Your task to perform on an android device: set default search engine in the chrome app Image 0: 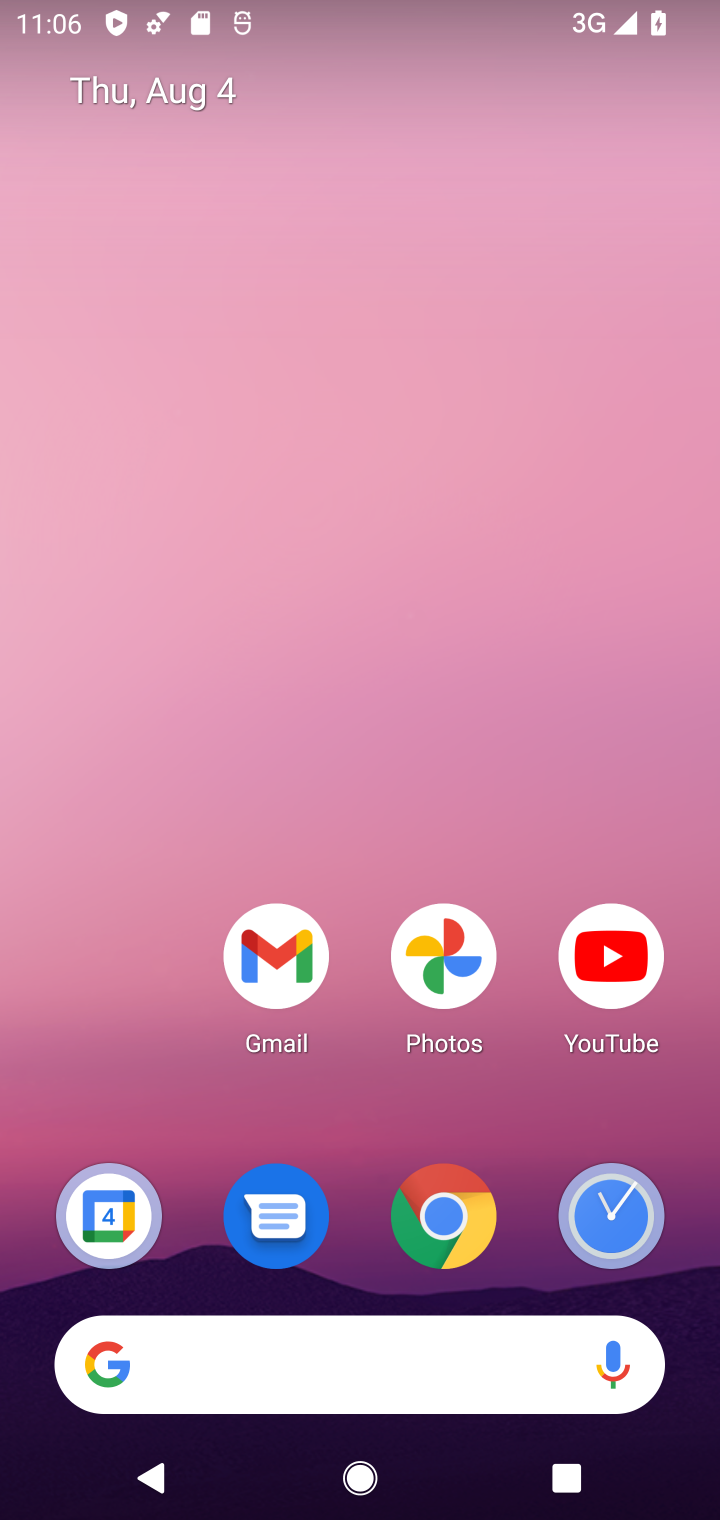
Step 0: click (449, 1212)
Your task to perform on an android device: set default search engine in the chrome app Image 1: 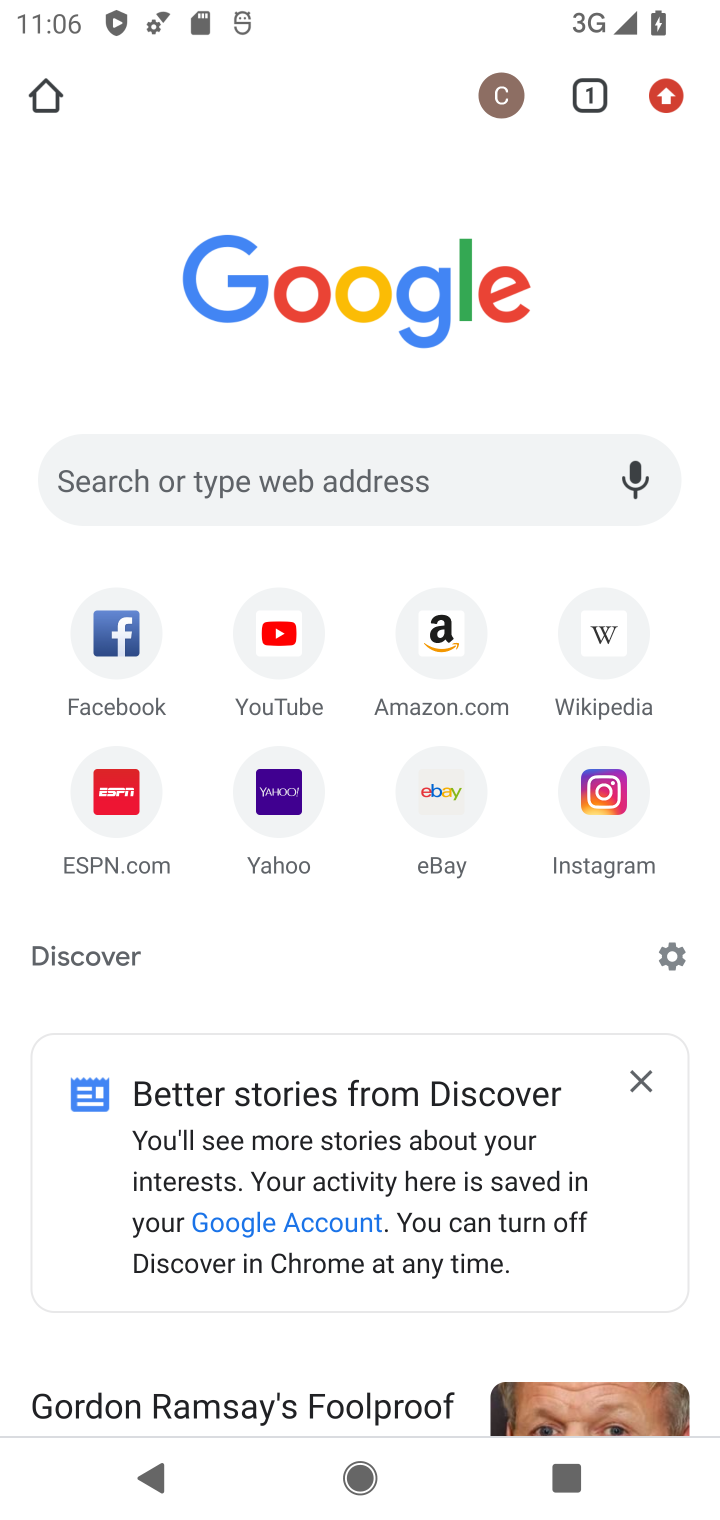
Step 1: click (668, 96)
Your task to perform on an android device: set default search engine in the chrome app Image 2: 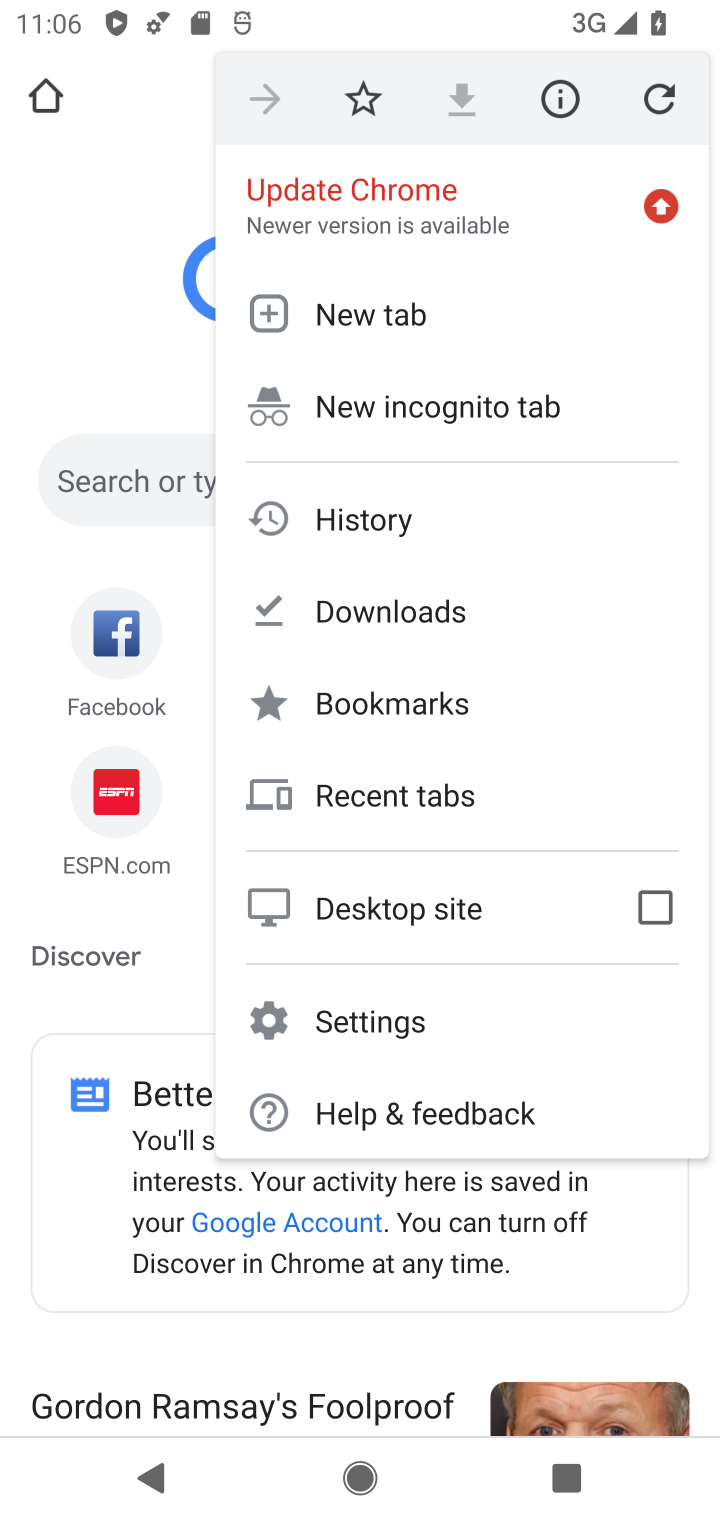
Step 2: click (399, 1033)
Your task to perform on an android device: set default search engine in the chrome app Image 3: 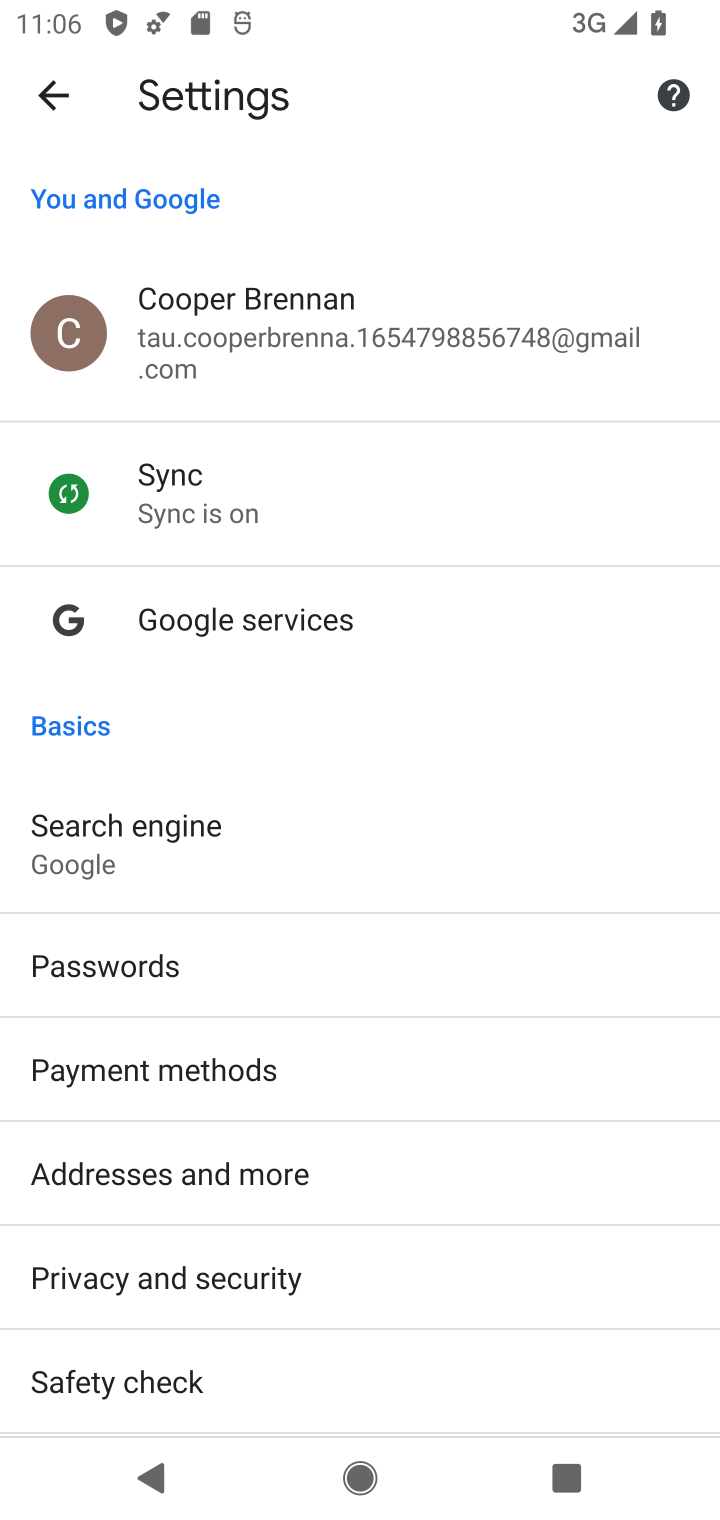
Step 3: click (195, 838)
Your task to perform on an android device: set default search engine in the chrome app Image 4: 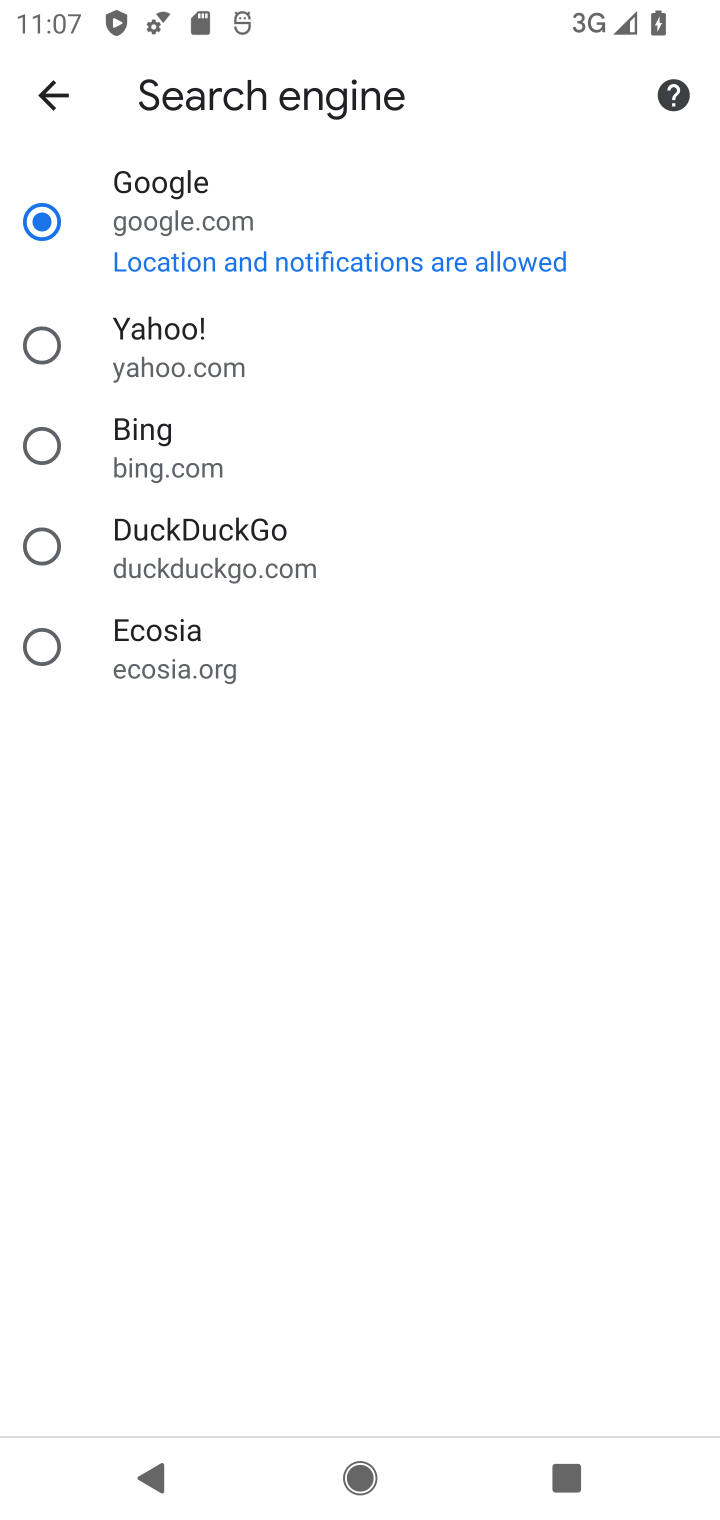
Step 4: task complete